Your task to perform on an android device: turn on the 24-hour format for clock Image 0: 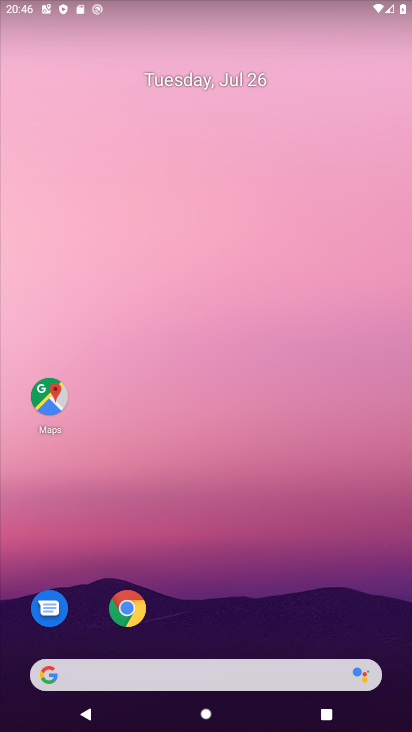
Step 0: drag from (30, 703) to (242, 268)
Your task to perform on an android device: turn on the 24-hour format for clock Image 1: 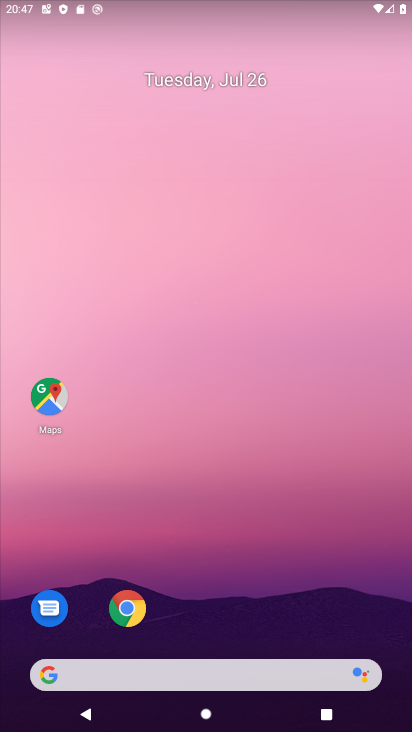
Step 1: drag from (21, 691) to (202, 225)
Your task to perform on an android device: turn on the 24-hour format for clock Image 2: 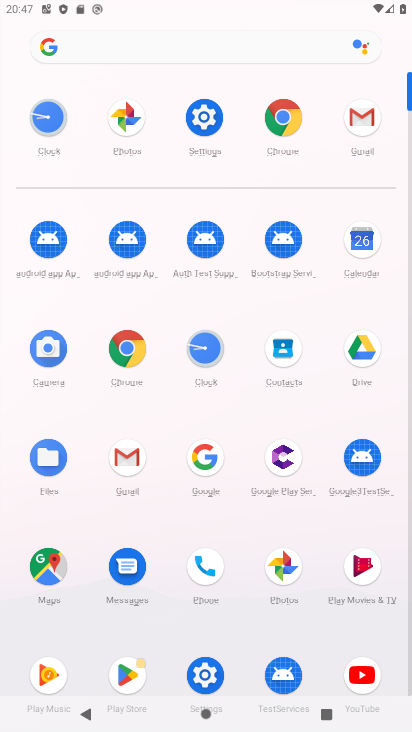
Step 2: click (206, 359)
Your task to perform on an android device: turn on the 24-hour format for clock Image 3: 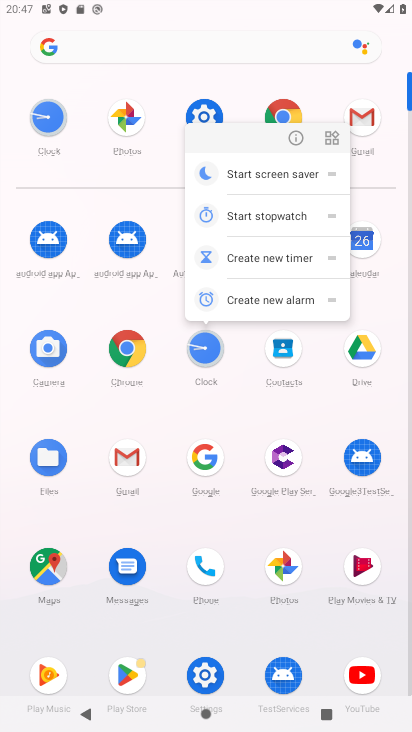
Step 3: click (48, 121)
Your task to perform on an android device: turn on the 24-hour format for clock Image 4: 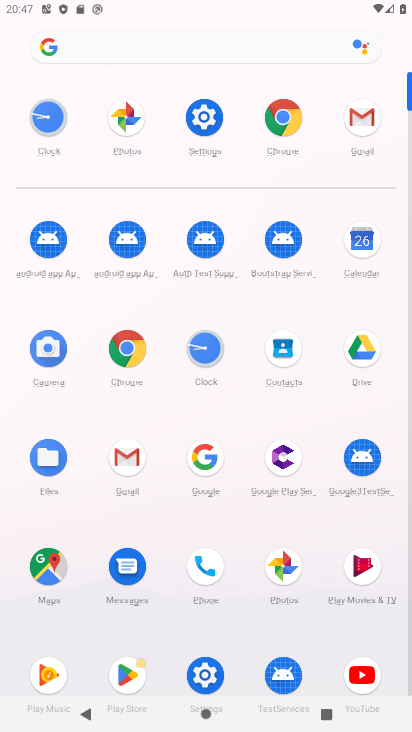
Step 4: click (55, 122)
Your task to perform on an android device: turn on the 24-hour format for clock Image 5: 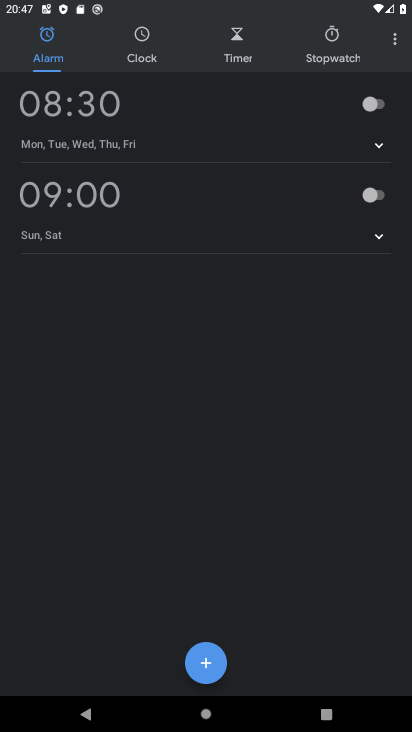
Step 5: click (399, 41)
Your task to perform on an android device: turn on the 24-hour format for clock Image 6: 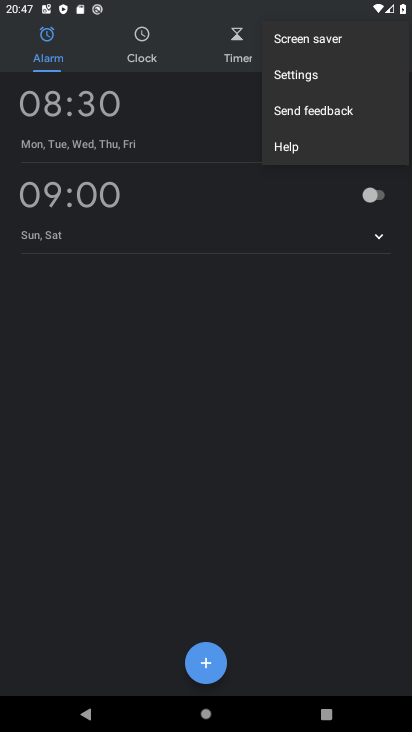
Step 6: click (289, 82)
Your task to perform on an android device: turn on the 24-hour format for clock Image 7: 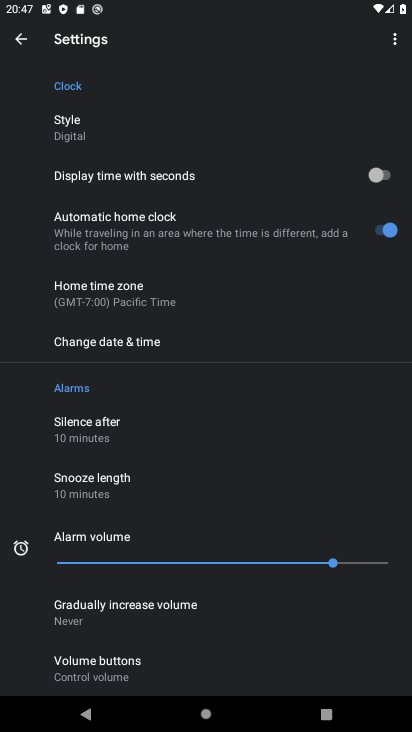
Step 7: drag from (209, 654) to (218, 163)
Your task to perform on an android device: turn on the 24-hour format for clock Image 8: 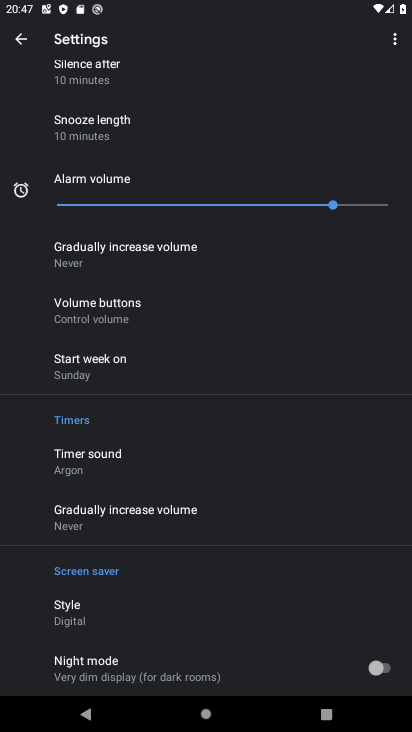
Step 8: drag from (190, 629) to (277, 321)
Your task to perform on an android device: turn on the 24-hour format for clock Image 9: 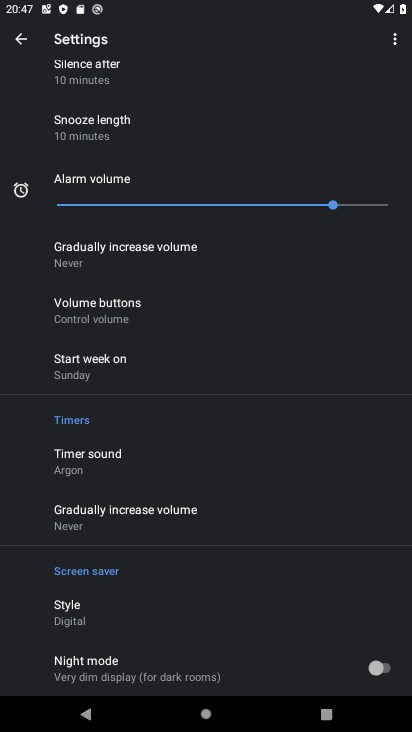
Step 9: drag from (234, 667) to (242, 467)
Your task to perform on an android device: turn on the 24-hour format for clock Image 10: 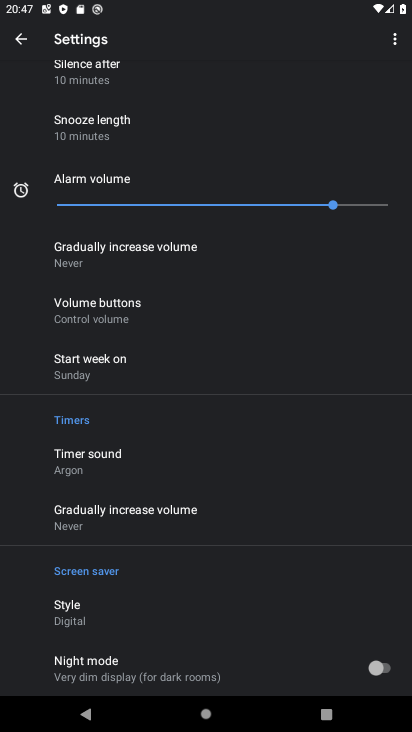
Step 10: drag from (185, 99) to (186, 392)
Your task to perform on an android device: turn on the 24-hour format for clock Image 11: 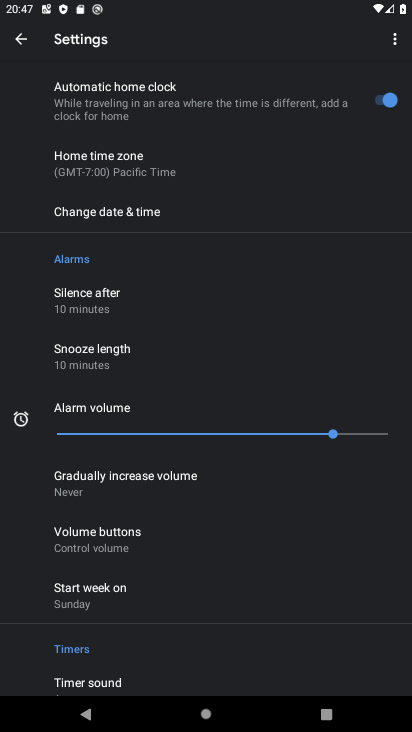
Step 11: click (146, 207)
Your task to perform on an android device: turn on the 24-hour format for clock Image 12: 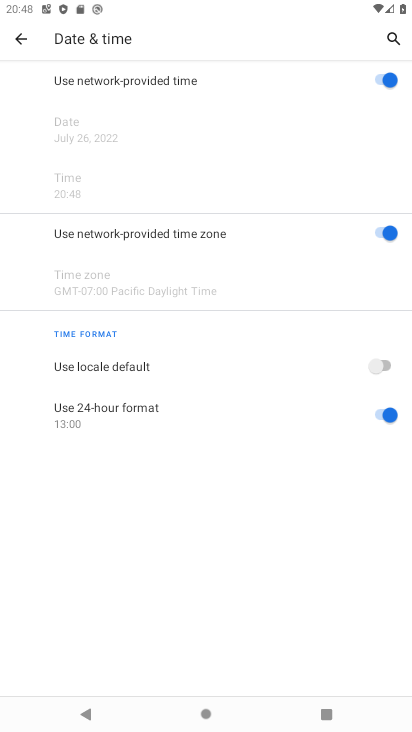
Step 12: task complete